Your task to perform on an android device: Open the web browser Image 0: 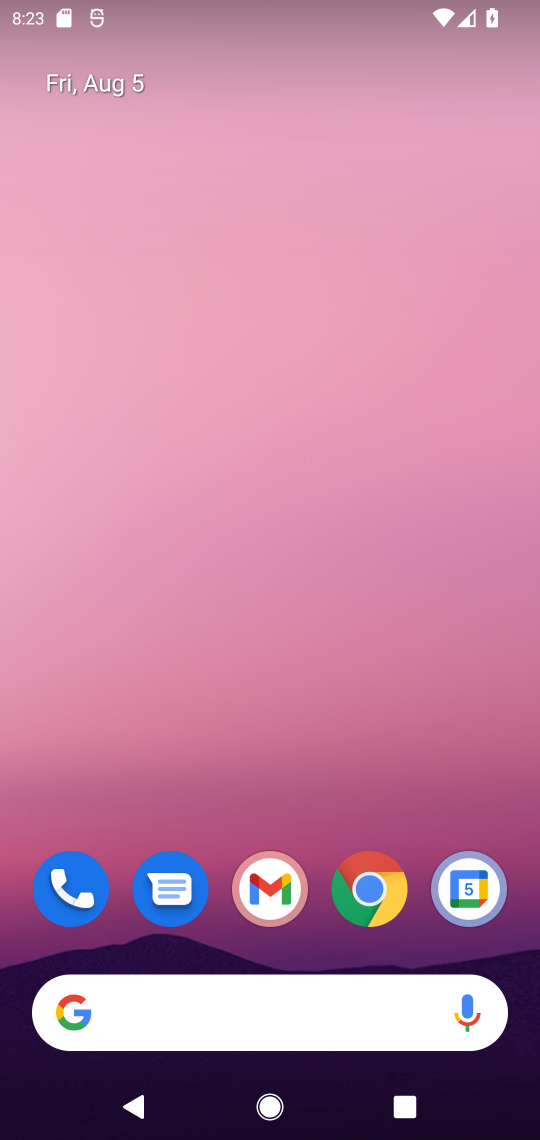
Step 0: drag from (157, 936) to (230, 302)
Your task to perform on an android device: Open the web browser Image 1: 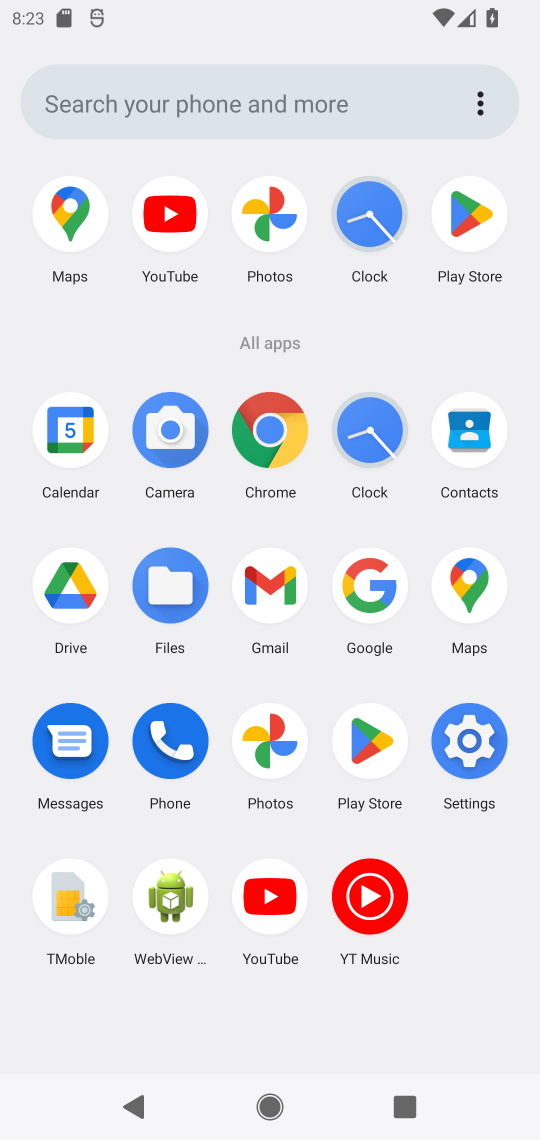
Step 1: click (277, 445)
Your task to perform on an android device: Open the web browser Image 2: 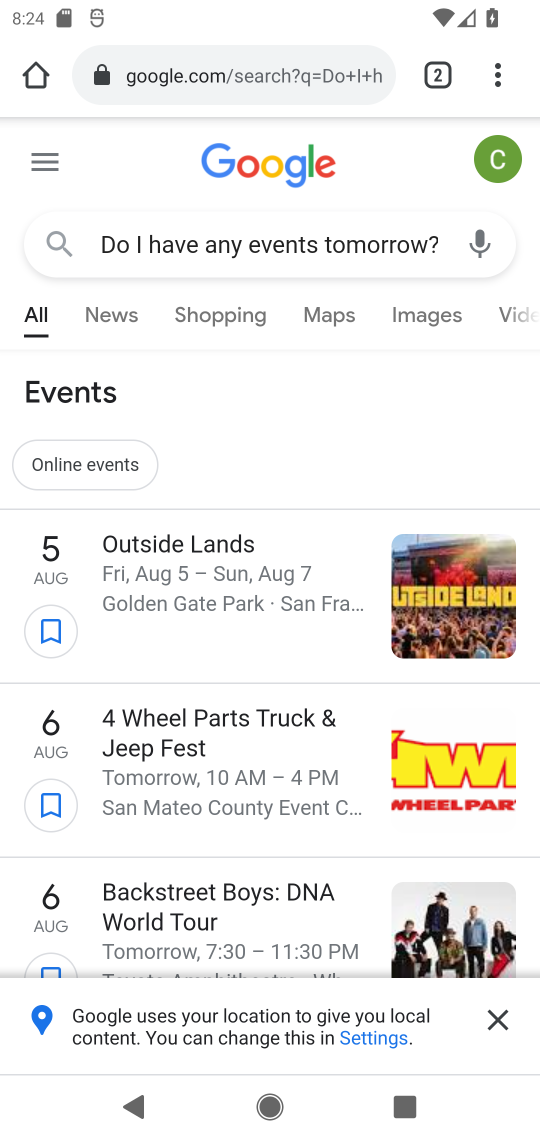
Step 2: task complete